Your task to perform on an android device: Open Reddit.com Image 0: 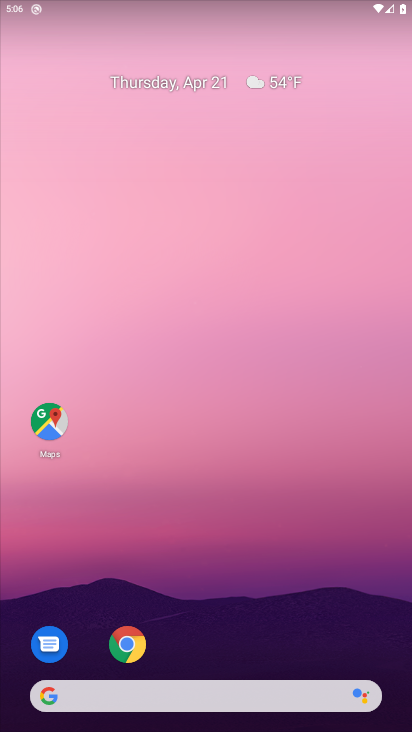
Step 0: click (126, 645)
Your task to perform on an android device: Open Reddit.com Image 1: 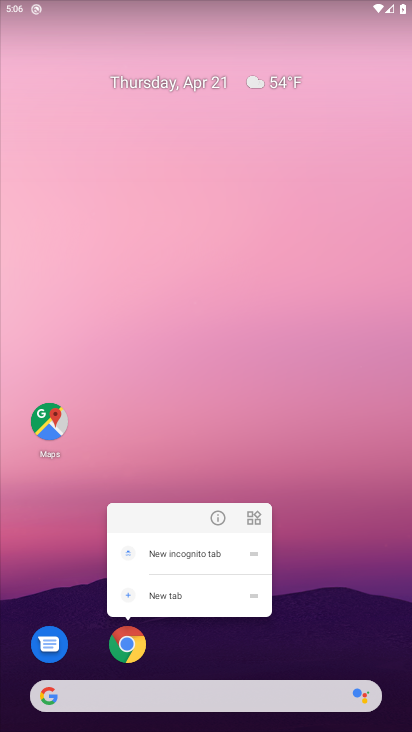
Step 1: click (126, 645)
Your task to perform on an android device: Open Reddit.com Image 2: 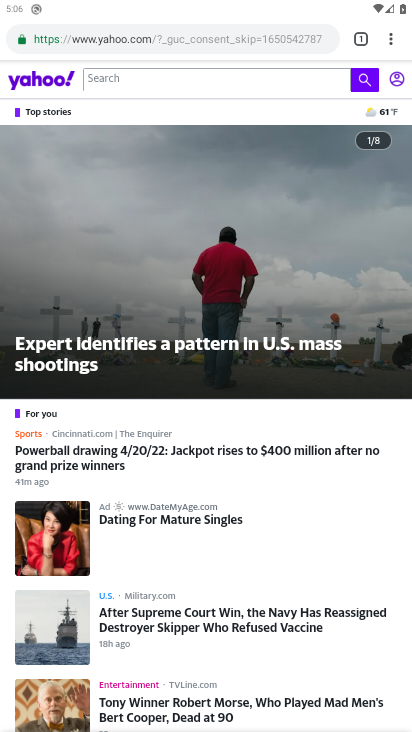
Step 2: click (360, 39)
Your task to perform on an android device: Open Reddit.com Image 3: 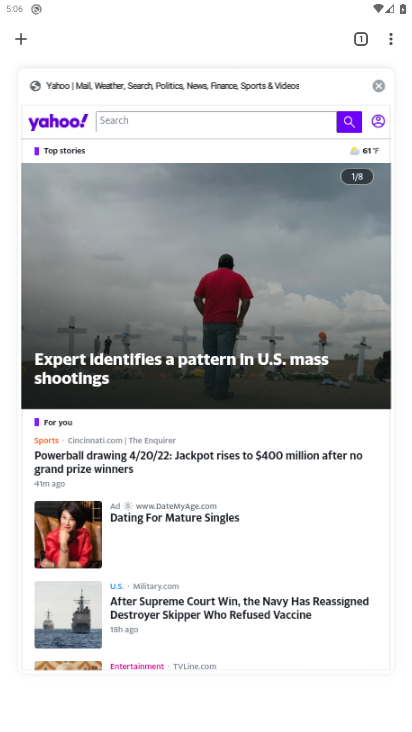
Step 3: click (377, 85)
Your task to perform on an android device: Open Reddit.com Image 4: 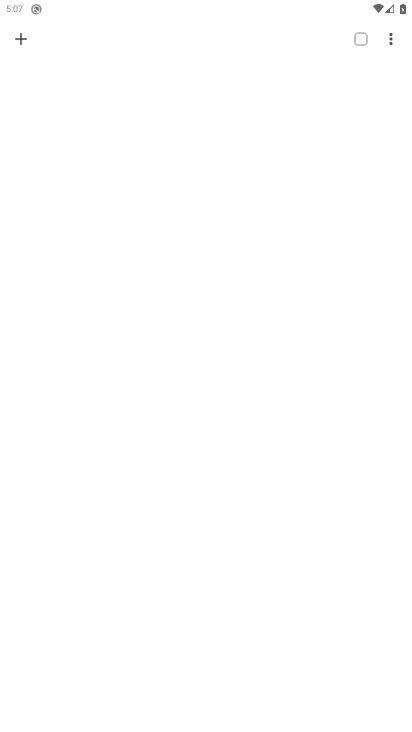
Step 4: click (392, 41)
Your task to perform on an android device: Open Reddit.com Image 5: 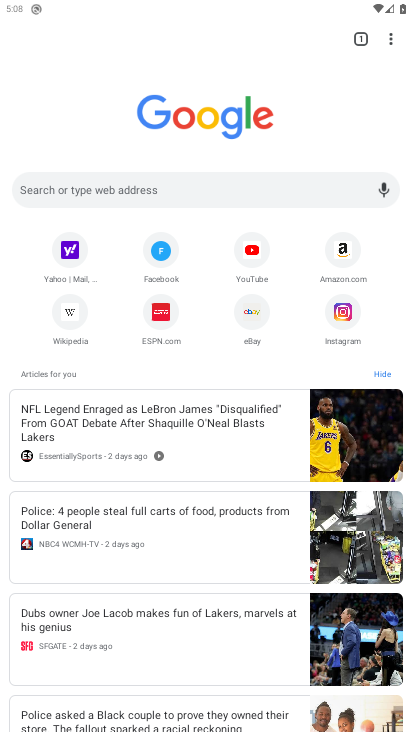
Step 5: click (392, 37)
Your task to perform on an android device: Open Reddit.com Image 6: 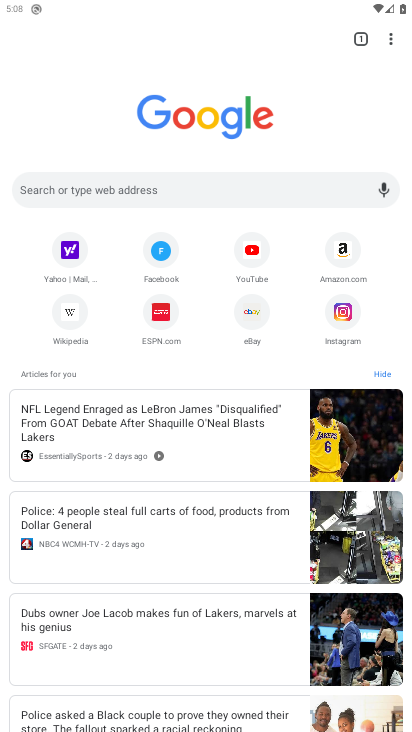
Step 6: click (119, 190)
Your task to perform on an android device: Open Reddit.com Image 7: 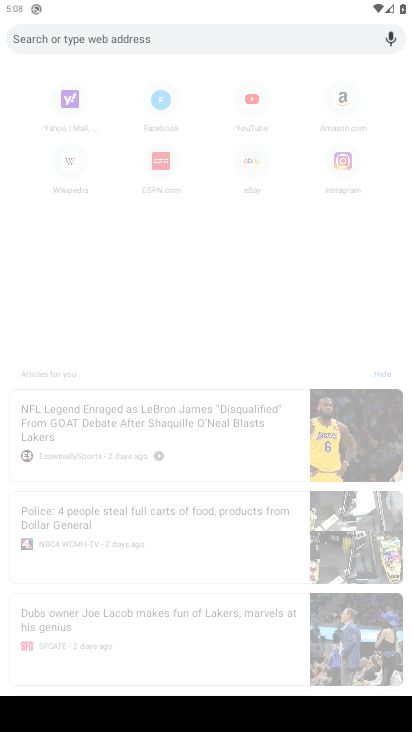
Step 7: type "Reddit.com"
Your task to perform on an android device: Open Reddit.com Image 8: 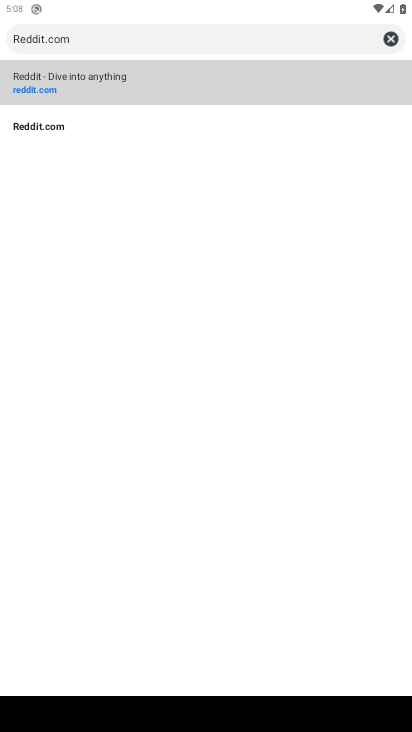
Step 8: click (43, 89)
Your task to perform on an android device: Open Reddit.com Image 9: 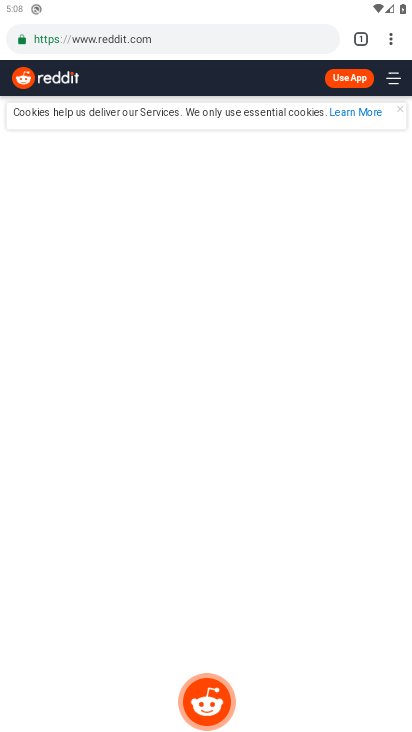
Step 9: task complete